Your task to perform on an android device: Open privacy settings Image 0: 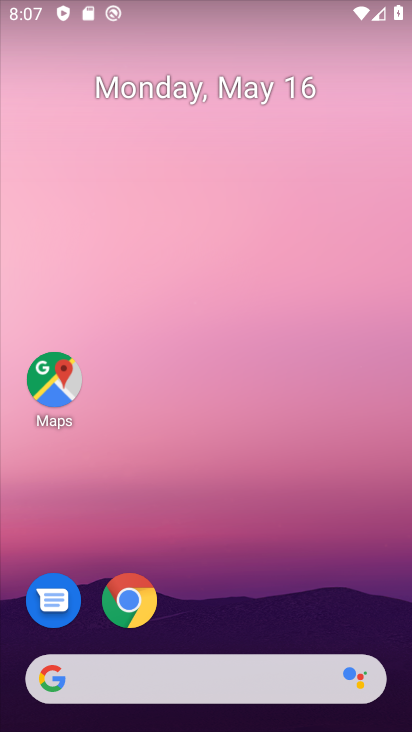
Step 0: click (119, 610)
Your task to perform on an android device: Open privacy settings Image 1: 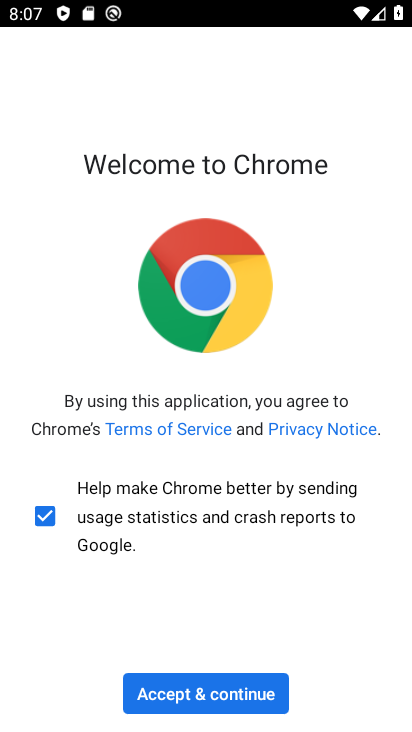
Step 1: click (225, 706)
Your task to perform on an android device: Open privacy settings Image 2: 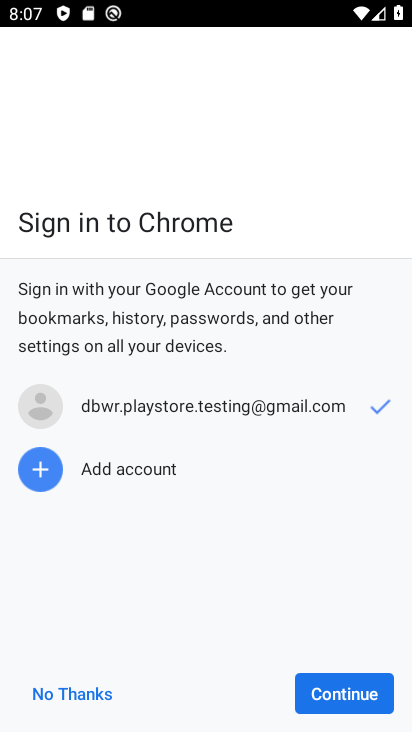
Step 2: click (339, 694)
Your task to perform on an android device: Open privacy settings Image 3: 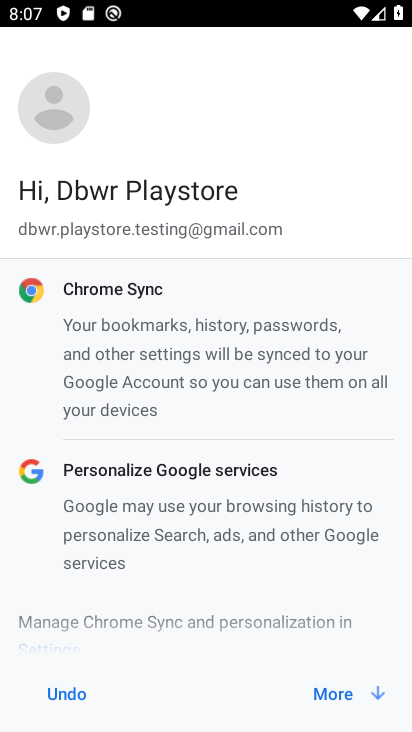
Step 3: click (339, 694)
Your task to perform on an android device: Open privacy settings Image 4: 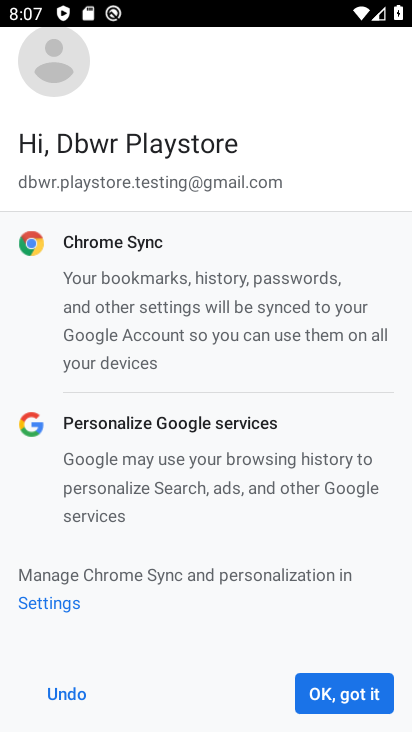
Step 4: click (339, 695)
Your task to perform on an android device: Open privacy settings Image 5: 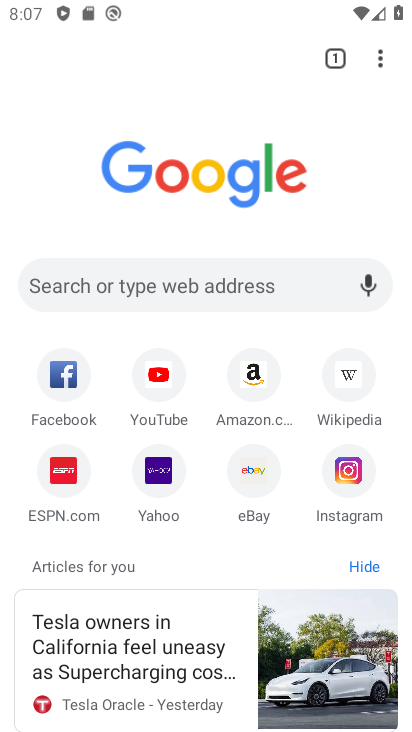
Step 5: drag from (394, 65) to (270, 509)
Your task to perform on an android device: Open privacy settings Image 6: 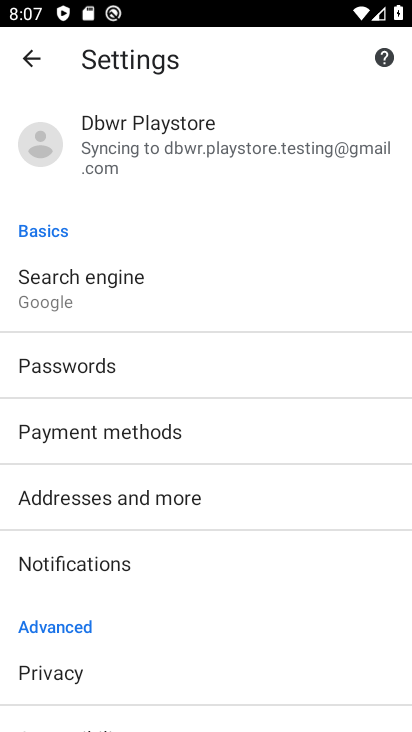
Step 6: click (171, 674)
Your task to perform on an android device: Open privacy settings Image 7: 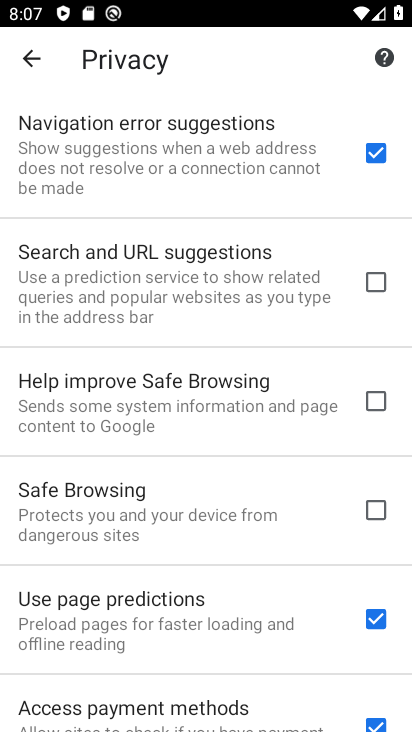
Step 7: task complete